Your task to perform on an android device: Open Google Chrome and open the bookmarks view Image 0: 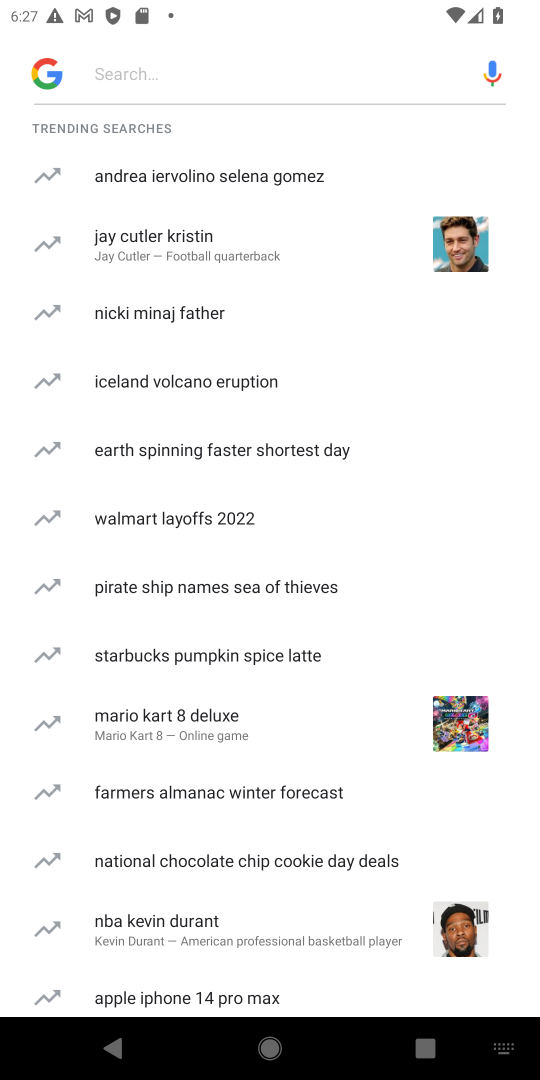
Step 0: press home button
Your task to perform on an android device: Open Google Chrome and open the bookmarks view Image 1: 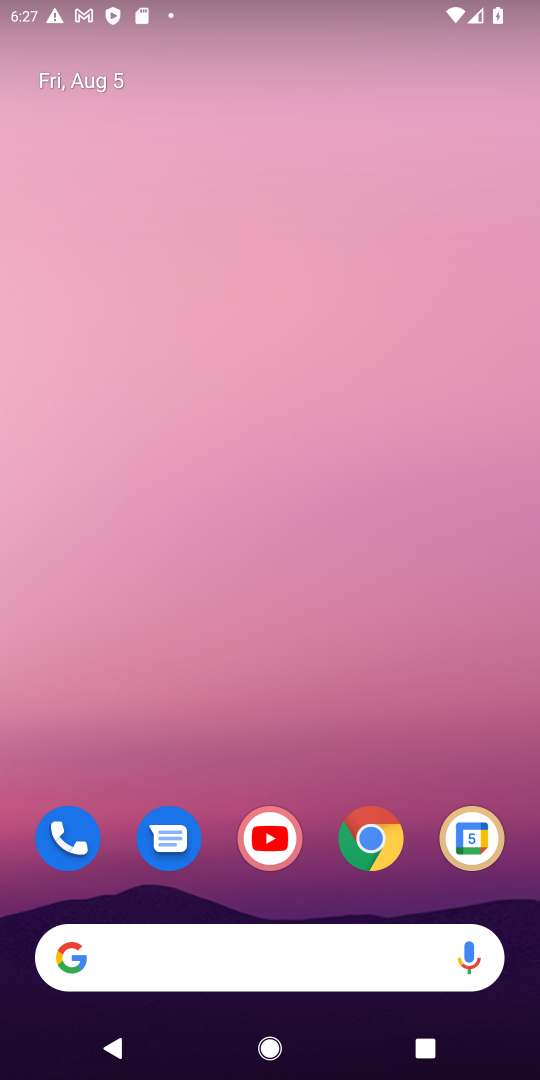
Step 1: click (368, 840)
Your task to perform on an android device: Open Google Chrome and open the bookmarks view Image 2: 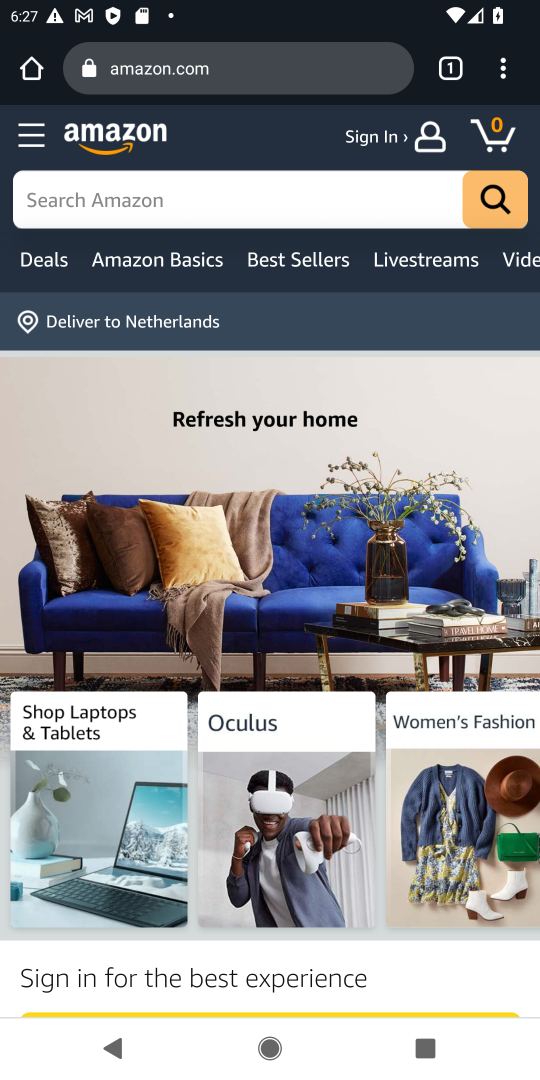
Step 2: task complete